Your task to perform on an android device: delete a single message in the gmail app Image 0: 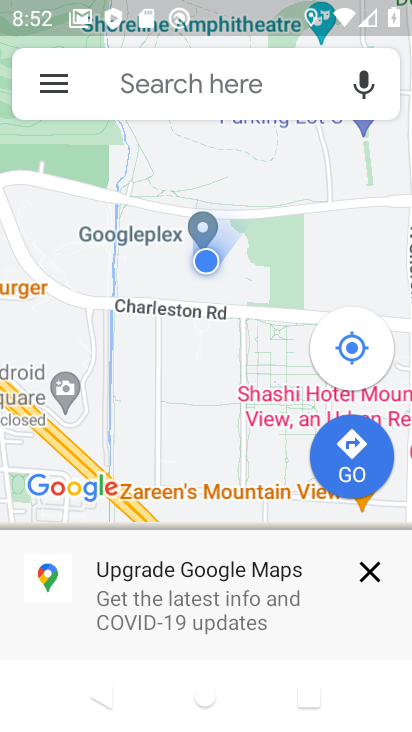
Step 0: press home button
Your task to perform on an android device: delete a single message in the gmail app Image 1: 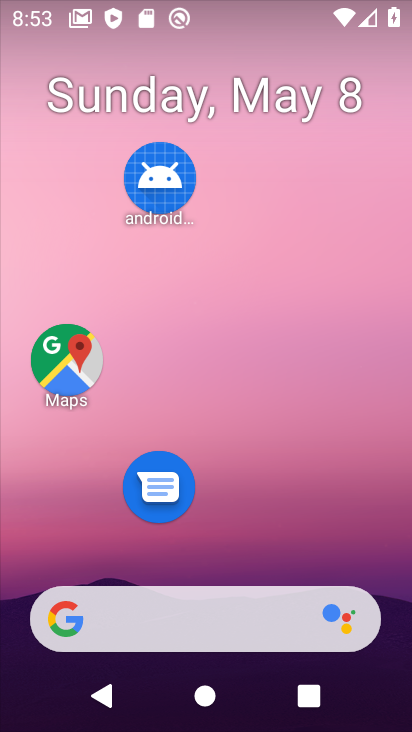
Step 1: drag from (258, 495) to (187, 175)
Your task to perform on an android device: delete a single message in the gmail app Image 2: 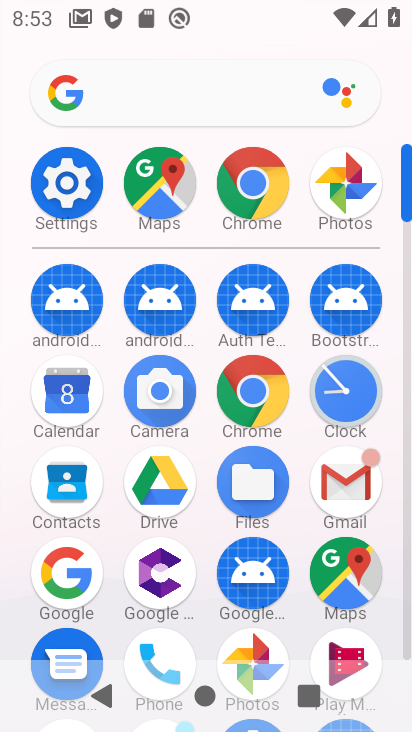
Step 2: click (333, 488)
Your task to perform on an android device: delete a single message in the gmail app Image 3: 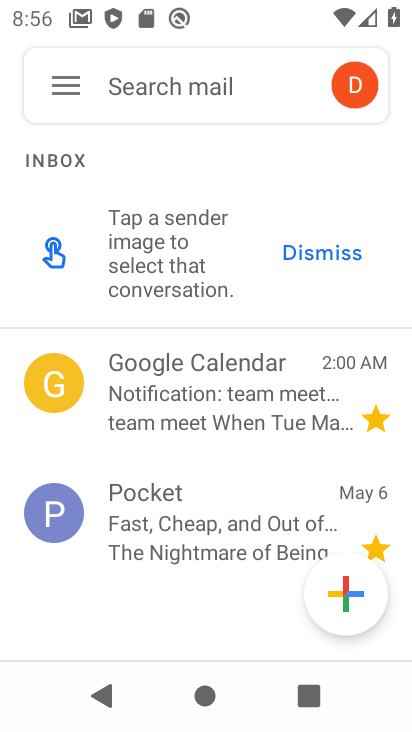
Step 3: click (67, 113)
Your task to perform on an android device: delete a single message in the gmail app Image 4: 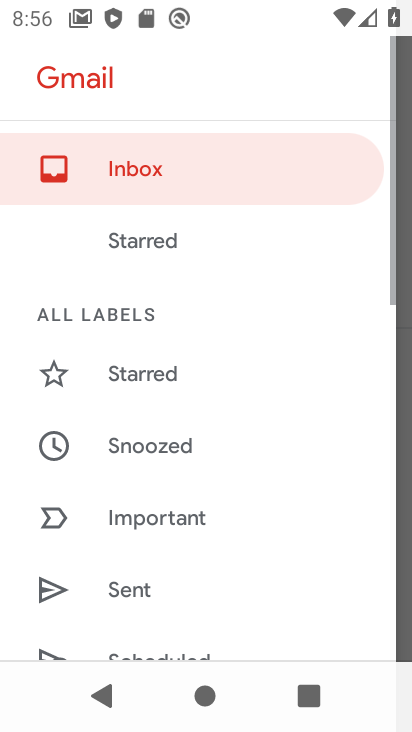
Step 4: drag from (118, 517) to (155, 284)
Your task to perform on an android device: delete a single message in the gmail app Image 5: 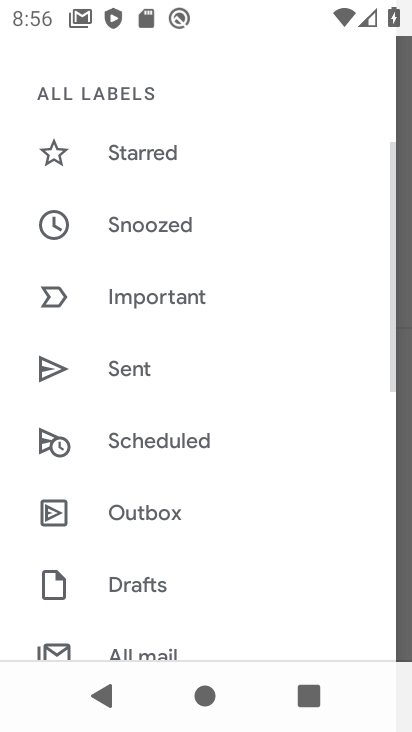
Step 5: drag from (149, 576) to (158, 272)
Your task to perform on an android device: delete a single message in the gmail app Image 6: 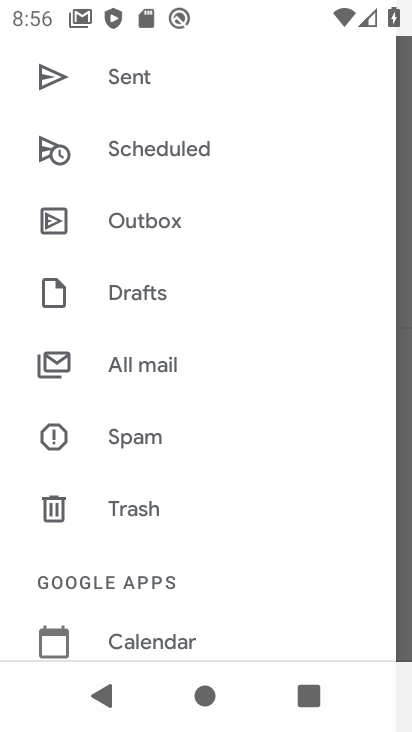
Step 6: drag from (163, 565) to (217, 320)
Your task to perform on an android device: delete a single message in the gmail app Image 7: 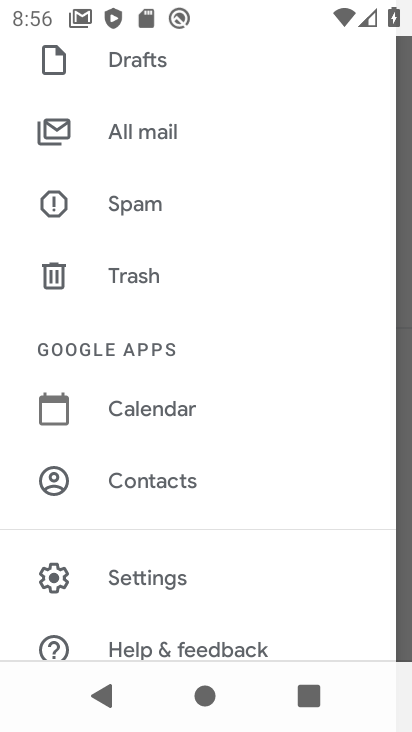
Step 7: click (191, 139)
Your task to perform on an android device: delete a single message in the gmail app Image 8: 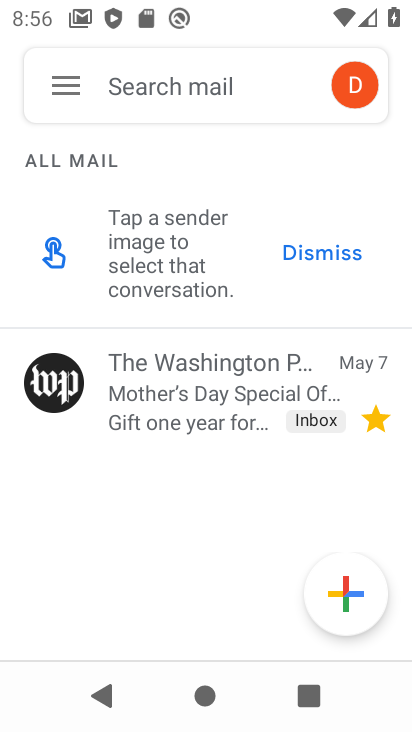
Step 8: click (208, 413)
Your task to perform on an android device: delete a single message in the gmail app Image 9: 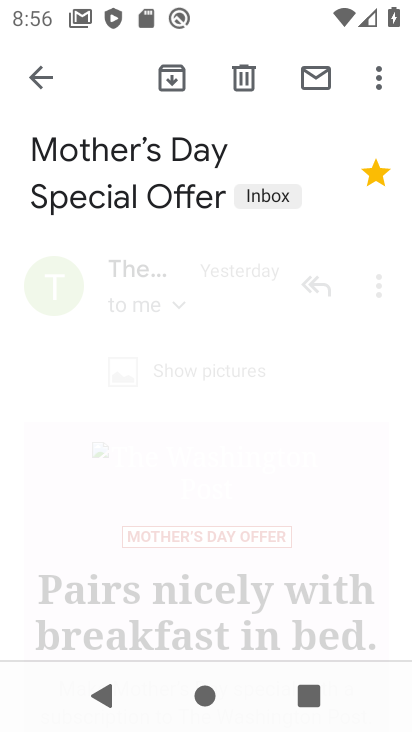
Step 9: click (376, 86)
Your task to perform on an android device: delete a single message in the gmail app Image 10: 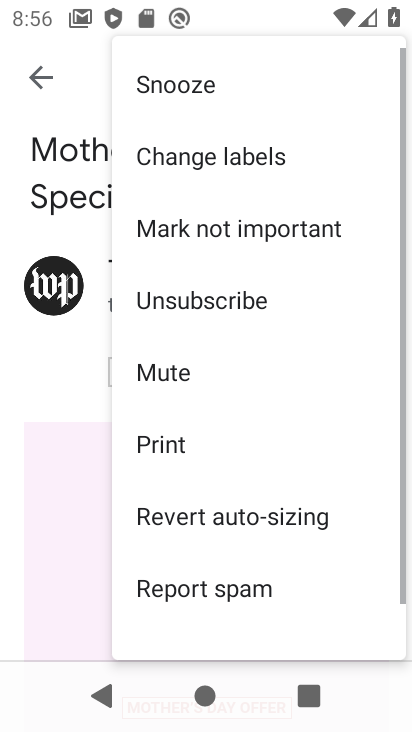
Step 10: drag from (174, 575) to (192, 314)
Your task to perform on an android device: delete a single message in the gmail app Image 11: 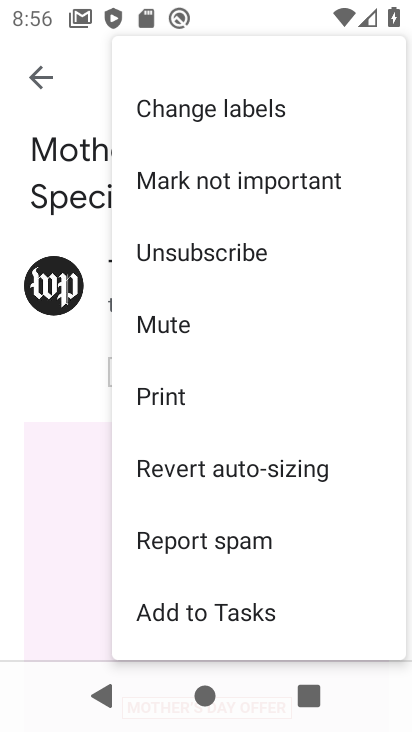
Step 11: drag from (199, 498) to (218, 437)
Your task to perform on an android device: delete a single message in the gmail app Image 12: 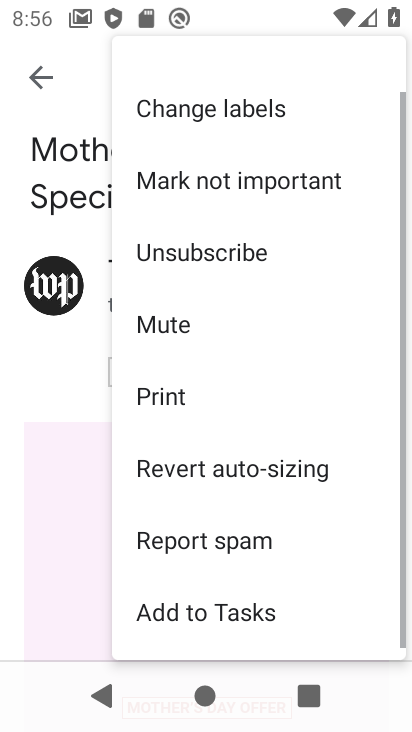
Step 12: click (61, 349)
Your task to perform on an android device: delete a single message in the gmail app Image 13: 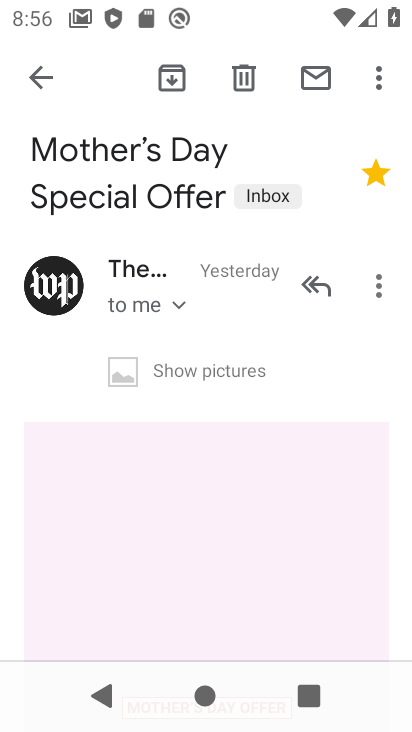
Step 13: click (231, 72)
Your task to perform on an android device: delete a single message in the gmail app Image 14: 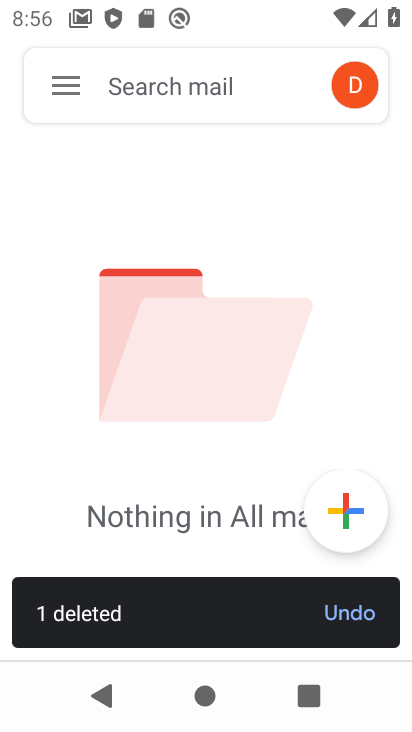
Step 14: task complete